Your task to perform on an android device: turn off improve location accuracy Image 0: 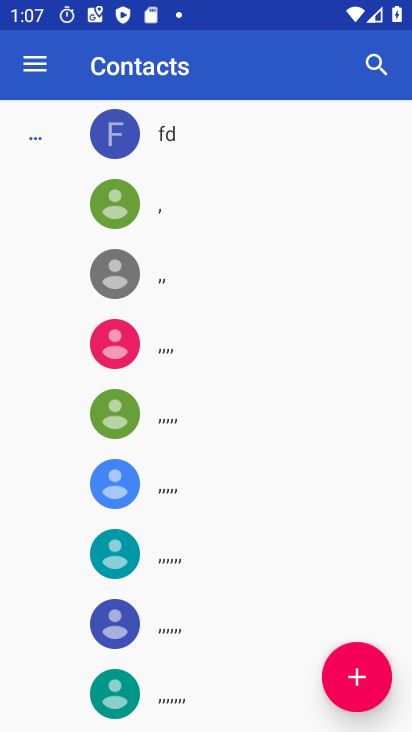
Step 0: press home button
Your task to perform on an android device: turn off improve location accuracy Image 1: 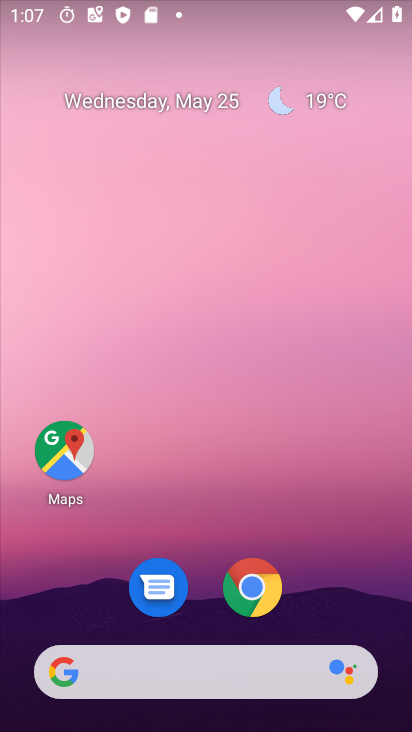
Step 1: drag from (213, 722) to (226, 124)
Your task to perform on an android device: turn off improve location accuracy Image 2: 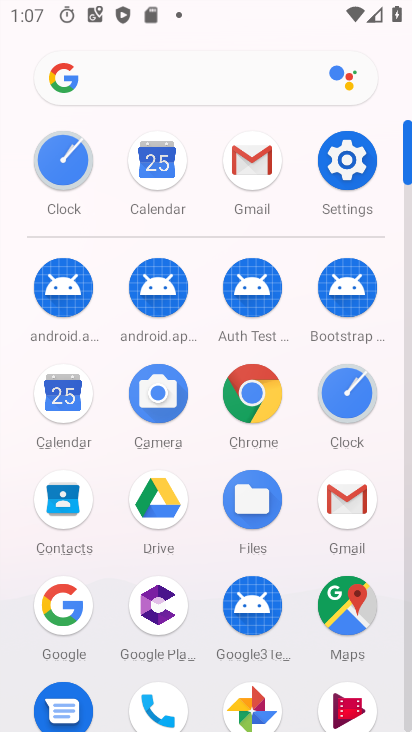
Step 2: click (357, 177)
Your task to perform on an android device: turn off improve location accuracy Image 3: 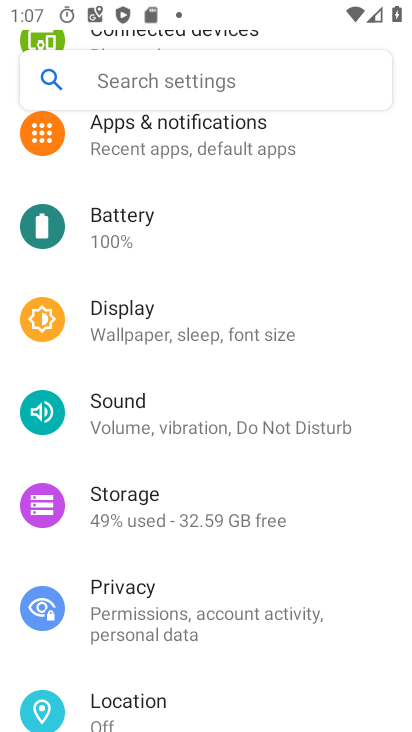
Step 3: click (108, 695)
Your task to perform on an android device: turn off improve location accuracy Image 4: 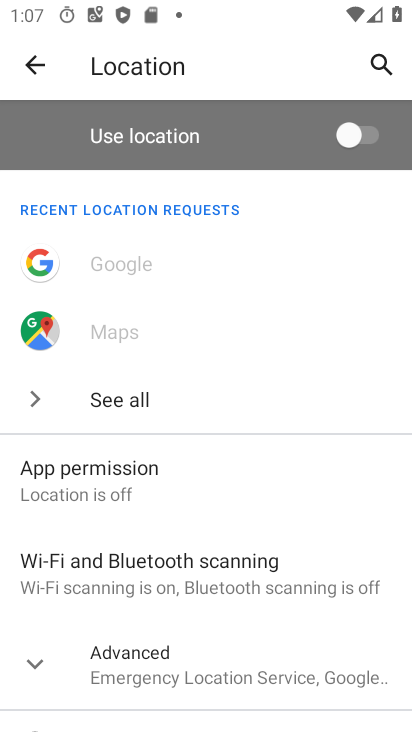
Step 4: drag from (115, 630) to (134, 318)
Your task to perform on an android device: turn off improve location accuracy Image 5: 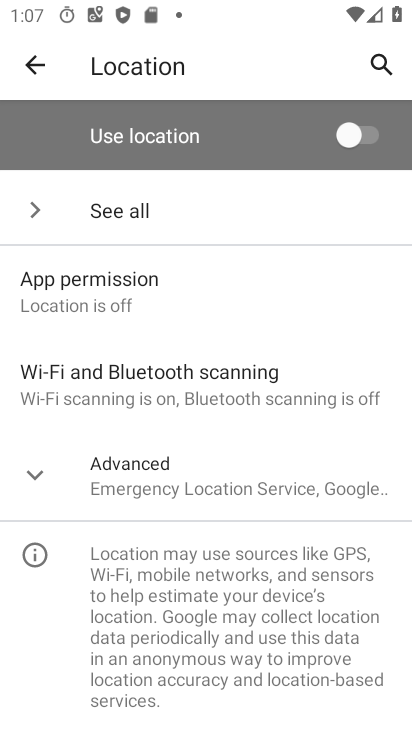
Step 5: drag from (157, 547) to (181, 328)
Your task to perform on an android device: turn off improve location accuracy Image 6: 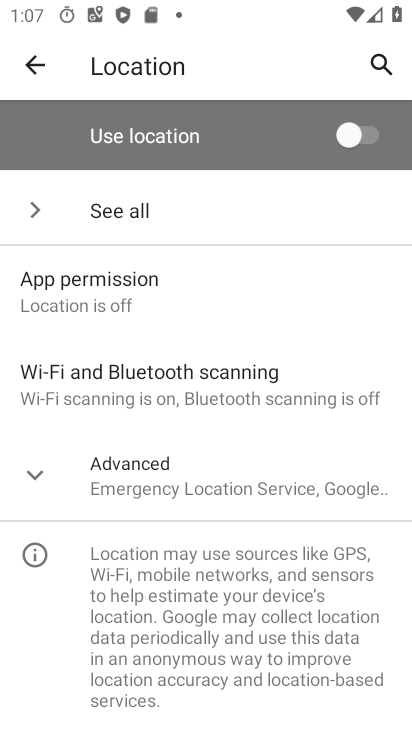
Step 6: click (142, 481)
Your task to perform on an android device: turn off improve location accuracy Image 7: 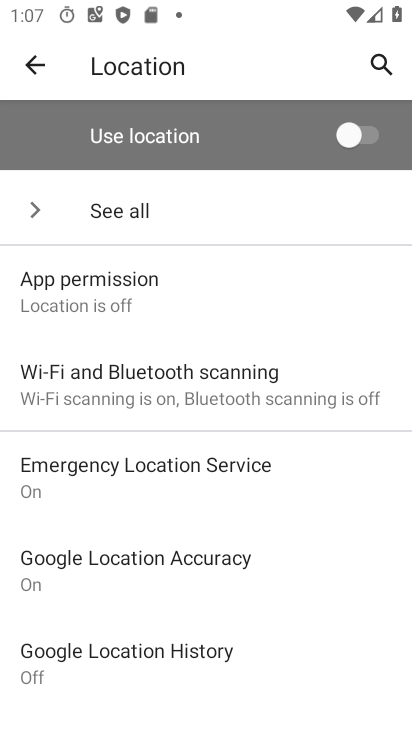
Step 7: click (131, 555)
Your task to perform on an android device: turn off improve location accuracy Image 8: 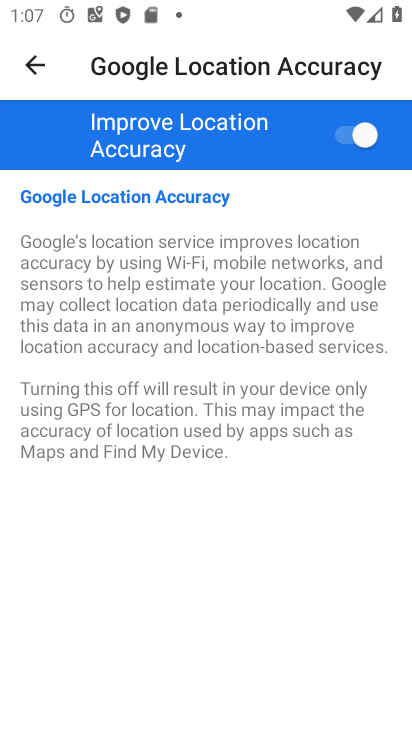
Step 8: click (342, 132)
Your task to perform on an android device: turn off improve location accuracy Image 9: 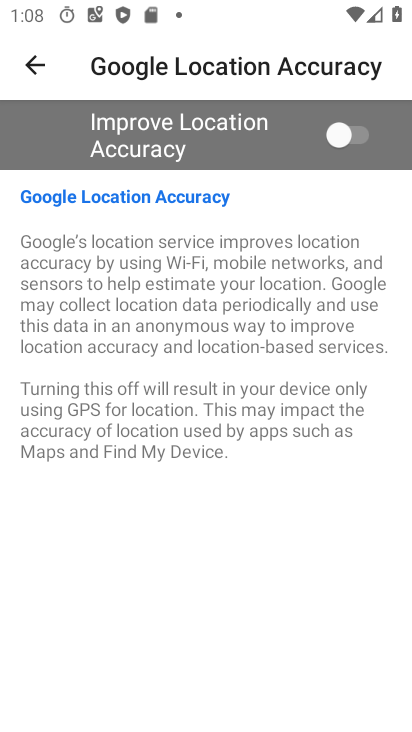
Step 9: task complete